Your task to perform on an android device: turn off notifications settings in the gmail app Image 0: 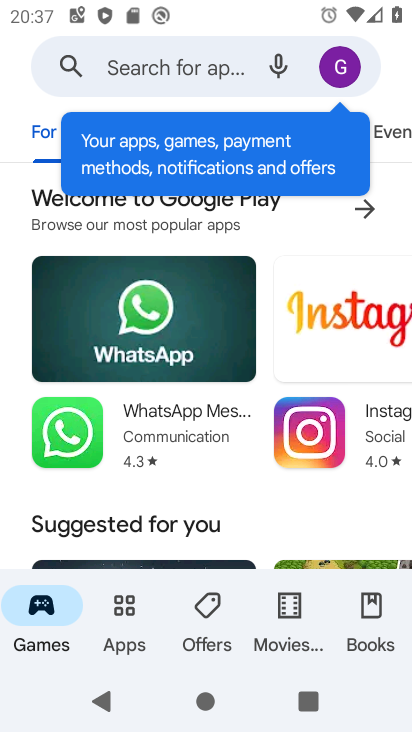
Step 0: press home button
Your task to perform on an android device: turn off notifications settings in the gmail app Image 1: 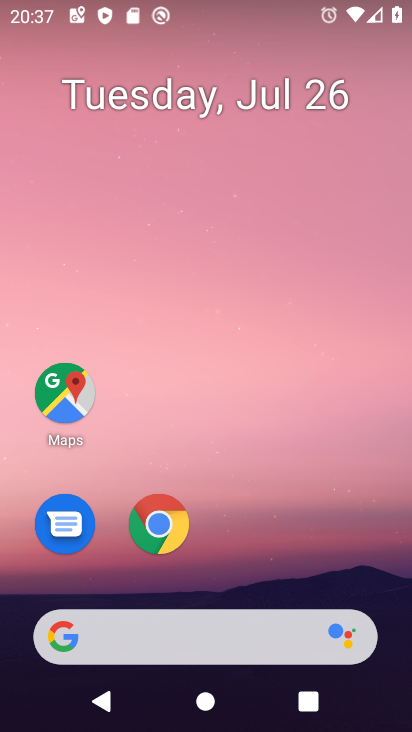
Step 1: drag from (229, 549) to (206, 85)
Your task to perform on an android device: turn off notifications settings in the gmail app Image 2: 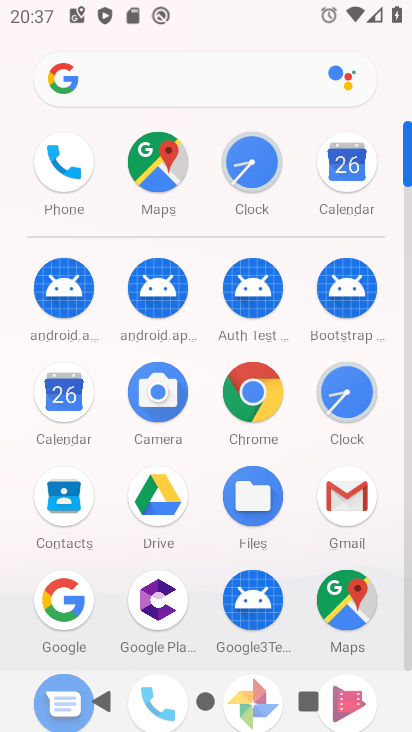
Step 2: click (358, 491)
Your task to perform on an android device: turn off notifications settings in the gmail app Image 3: 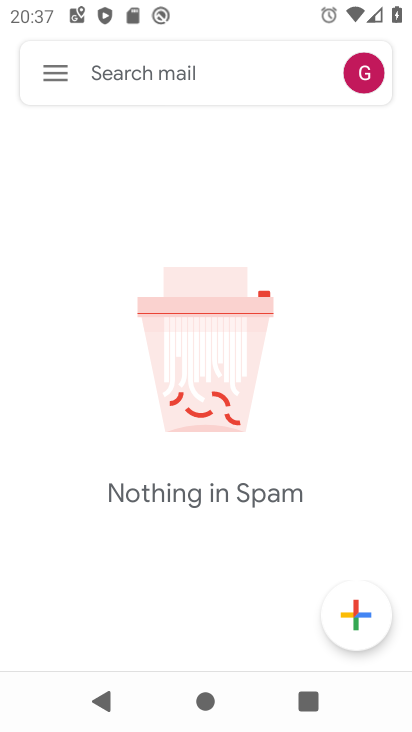
Step 3: click (58, 72)
Your task to perform on an android device: turn off notifications settings in the gmail app Image 4: 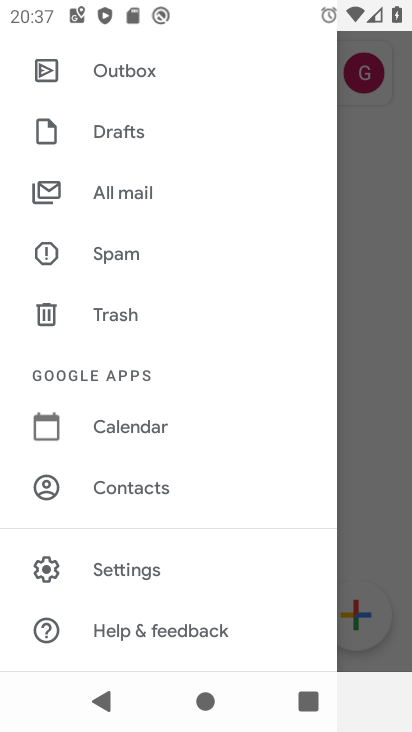
Step 4: drag from (174, 121) to (201, 5)
Your task to perform on an android device: turn off notifications settings in the gmail app Image 5: 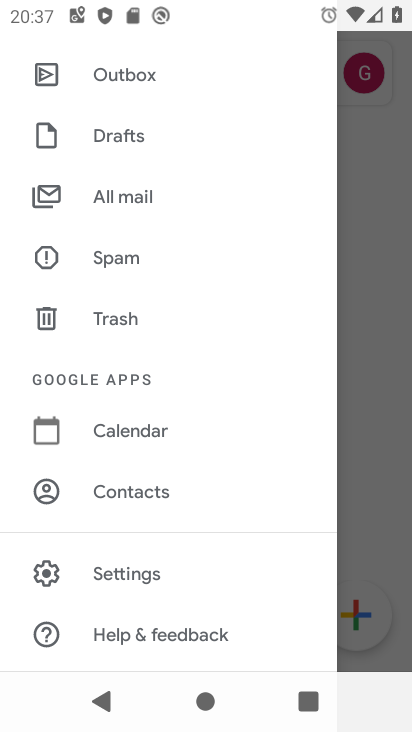
Step 5: click (140, 573)
Your task to perform on an android device: turn off notifications settings in the gmail app Image 6: 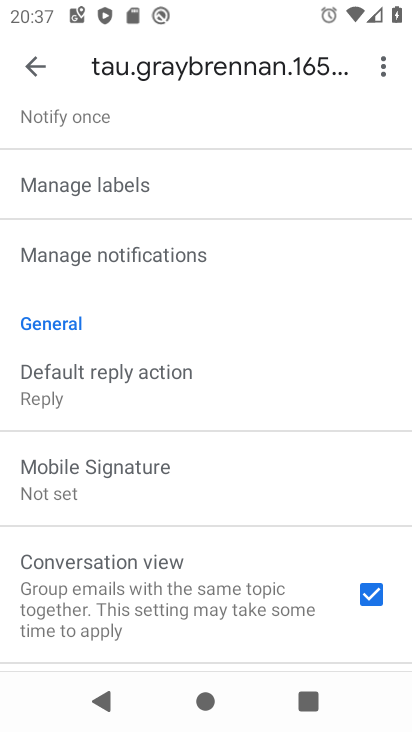
Step 6: click (183, 257)
Your task to perform on an android device: turn off notifications settings in the gmail app Image 7: 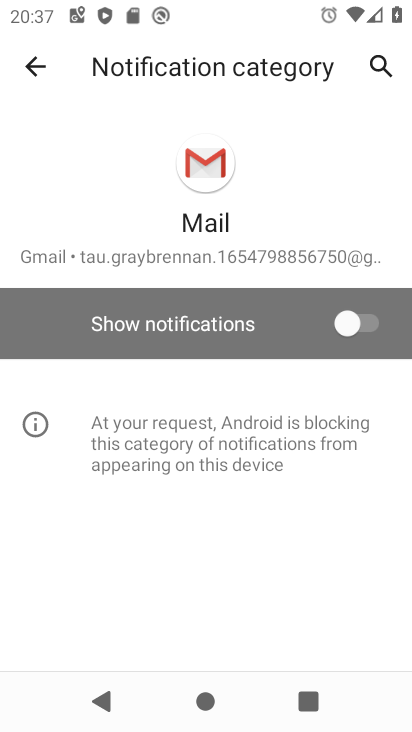
Step 7: task complete